Your task to perform on an android device: What's on my calendar tomorrow? Image 0: 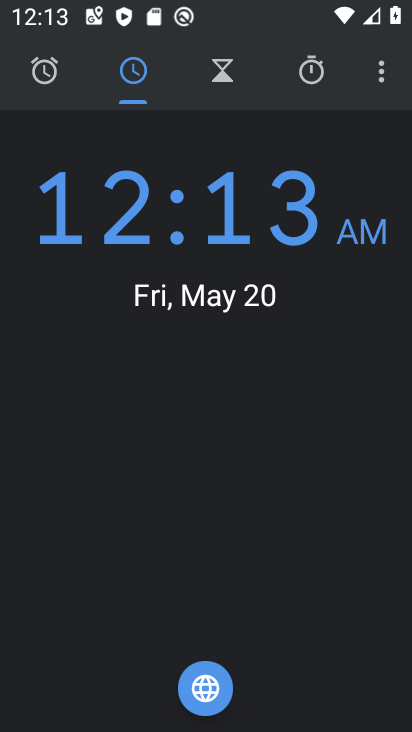
Step 0: press home button
Your task to perform on an android device: What's on my calendar tomorrow? Image 1: 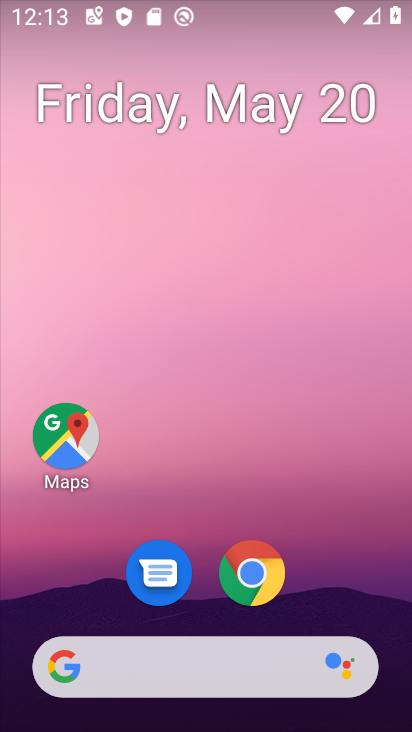
Step 1: drag from (330, 527) to (351, 114)
Your task to perform on an android device: What's on my calendar tomorrow? Image 2: 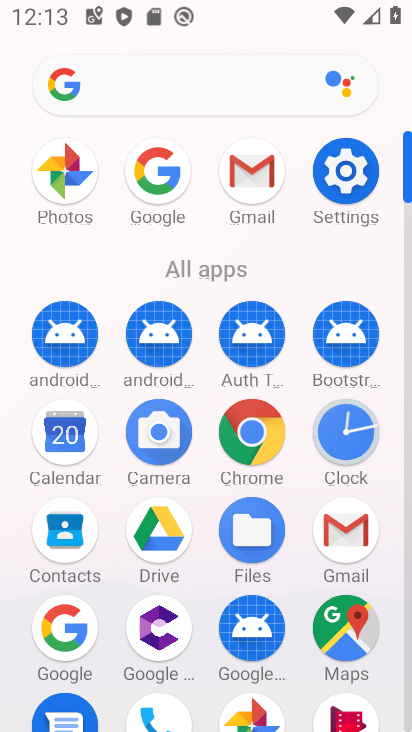
Step 2: click (64, 430)
Your task to perform on an android device: What's on my calendar tomorrow? Image 3: 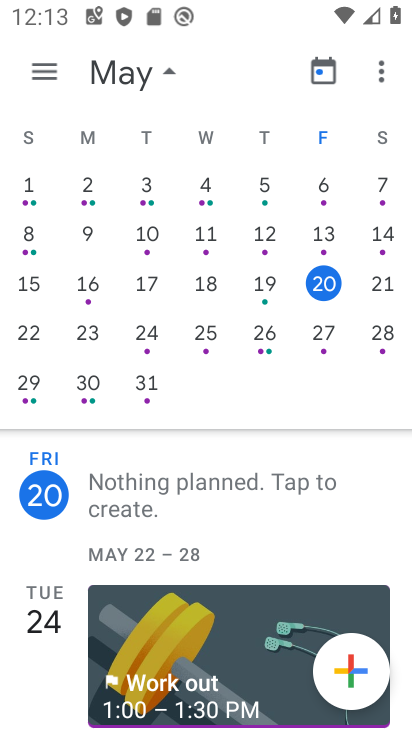
Step 3: click (373, 283)
Your task to perform on an android device: What's on my calendar tomorrow? Image 4: 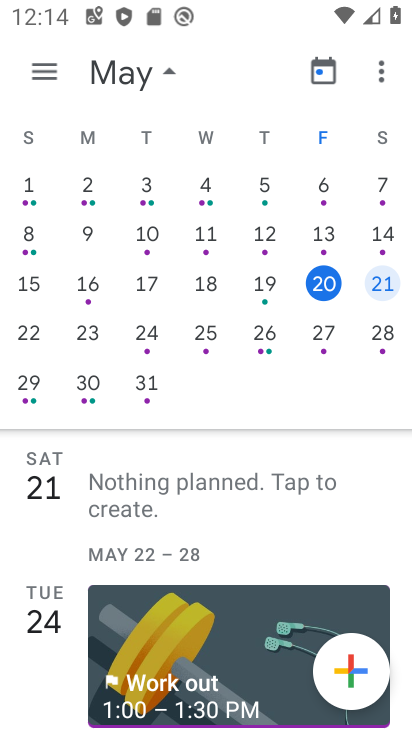
Step 4: task complete